Your task to perform on an android device: Set the phone to "Do not disturb". Image 0: 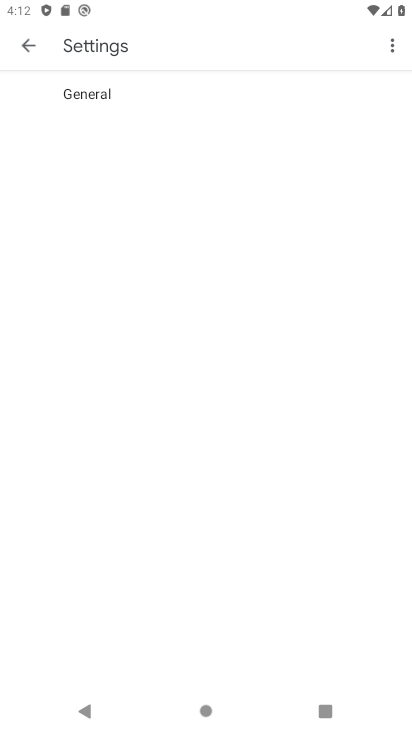
Step 0: press home button
Your task to perform on an android device: Set the phone to "Do not disturb". Image 1: 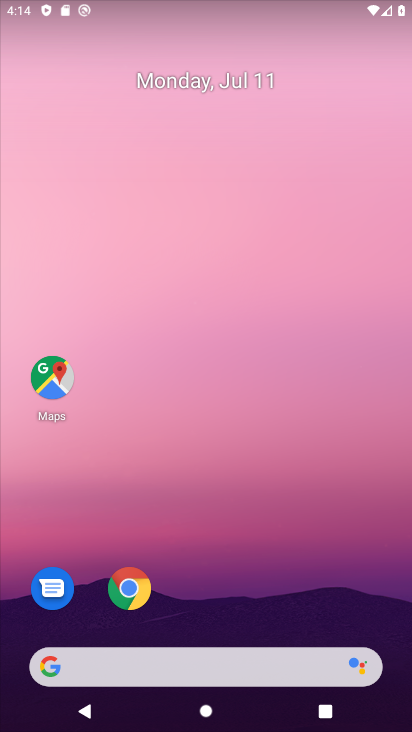
Step 1: drag from (235, 695) to (237, 19)
Your task to perform on an android device: Set the phone to "Do not disturb". Image 2: 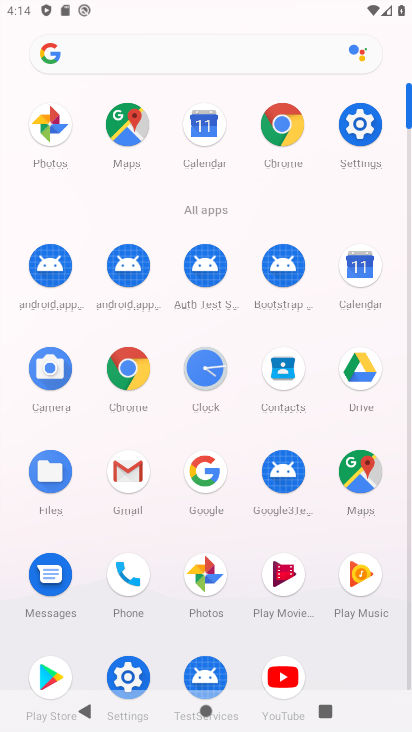
Step 2: click (358, 135)
Your task to perform on an android device: Set the phone to "Do not disturb". Image 3: 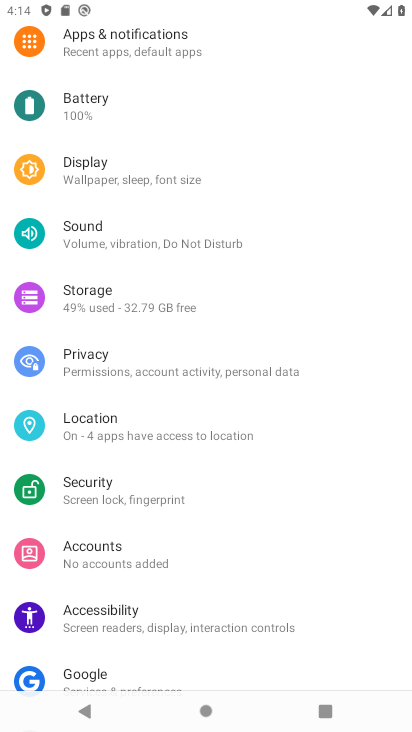
Step 3: click (252, 248)
Your task to perform on an android device: Set the phone to "Do not disturb". Image 4: 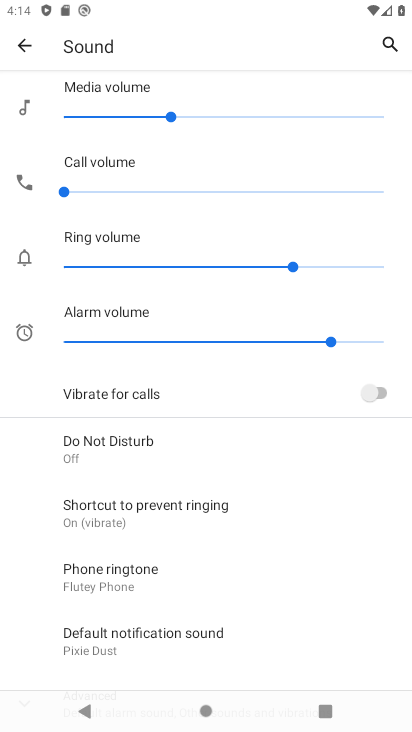
Step 4: click (107, 448)
Your task to perform on an android device: Set the phone to "Do not disturb". Image 5: 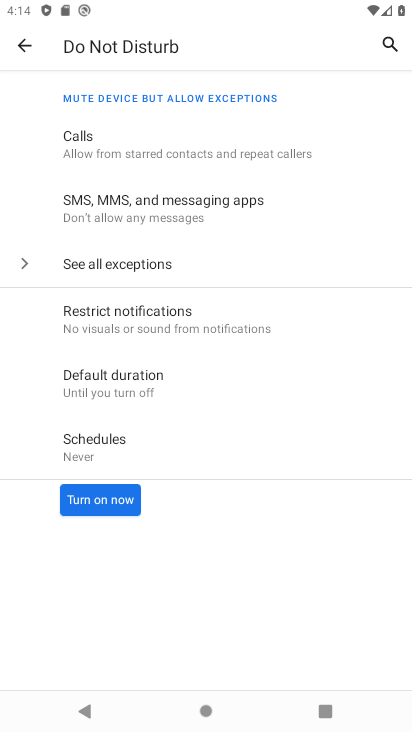
Step 5: click (130, 500)
Your task to perform on an android device: Set the phone to "Do not disturb". Image 6: 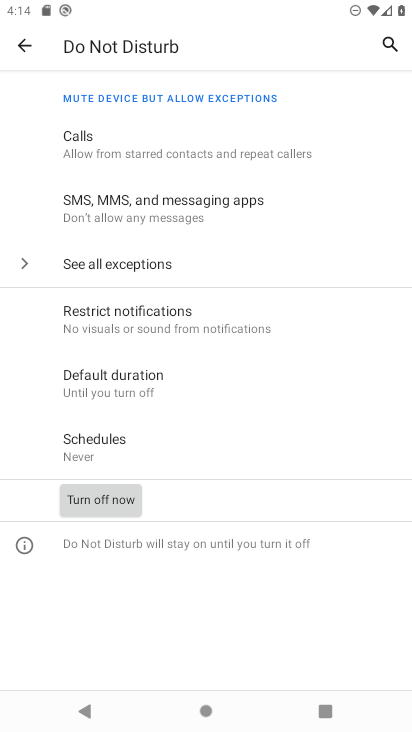
Step 6: task complete